Your task to perform on an android device: Open the calendar app, open the side menu, and click the "Day" option Image 0: 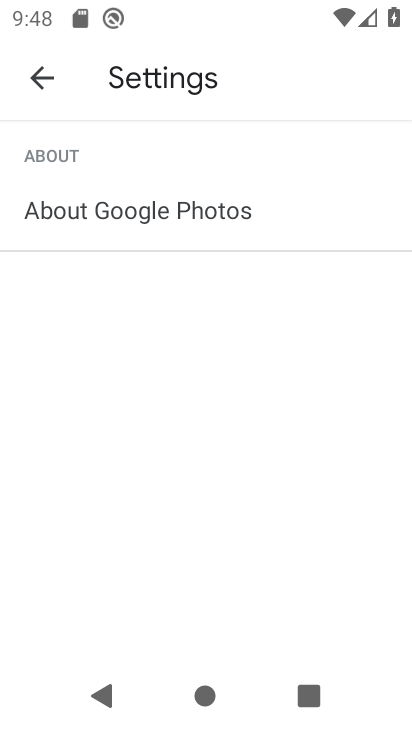
Step 0: press back button
Your task to perform on an android device: Open the calendar app, open the side menu, and click the "Day" option Image 1: 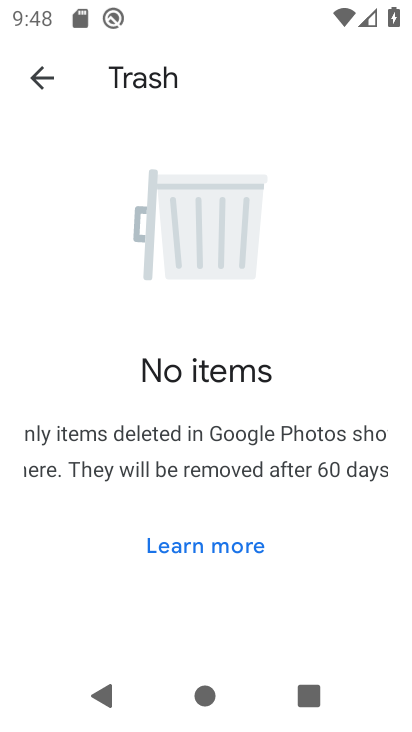
Step 1: press back button
Your task to perform on an android device: Open the calendar app, open the side menu, and click the "Day" option Image 2: 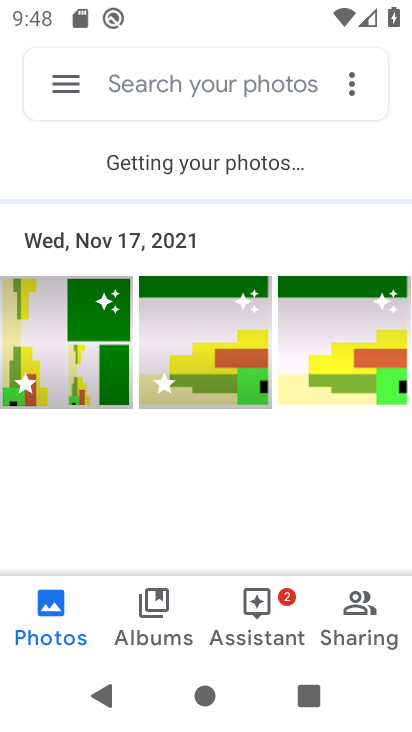
Step 2: press home button
Your task to perform on an android device: Open the calendar app, open the side menu, and click the "Day" option Image 3: 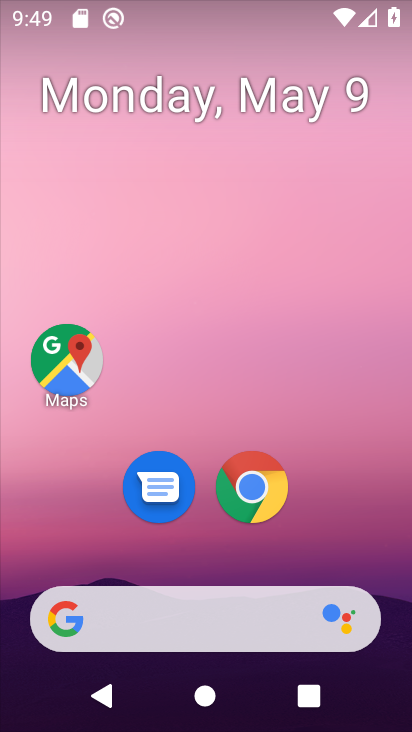
Step 3: drag from (341, 540) to (271, 13)
Your task to perform on an android device: Open the calendar app, open the side menu, and click the "Day" option Image 4: 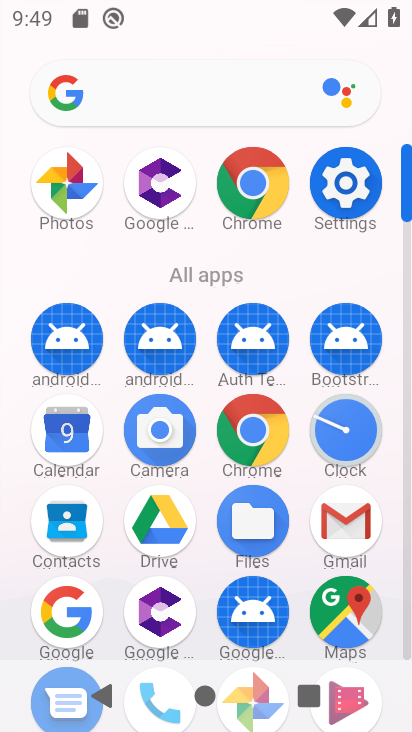
Step 4: click (60, 424)
Your task to perform on an android device: Open the calendar app, open the side menu, and click the "Day" option Image 5: 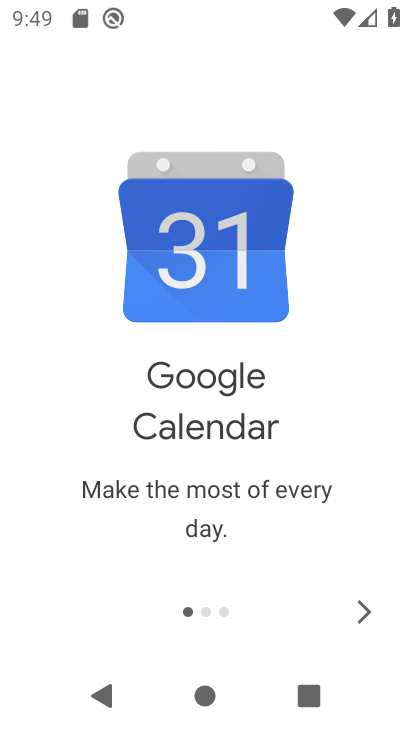
Step 5: click (357, 603)
Your task to perform on an android device: Open the calendar app, open the side menu, and click the "Day" option Image 6: 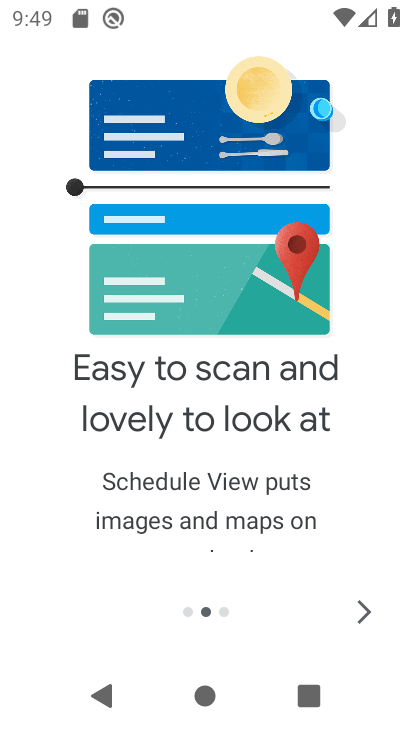
Step 6: click (357, 603)
Your task to perform on an android device: Open the calendar app, open the side menu, and click the "Day" option Image 7: 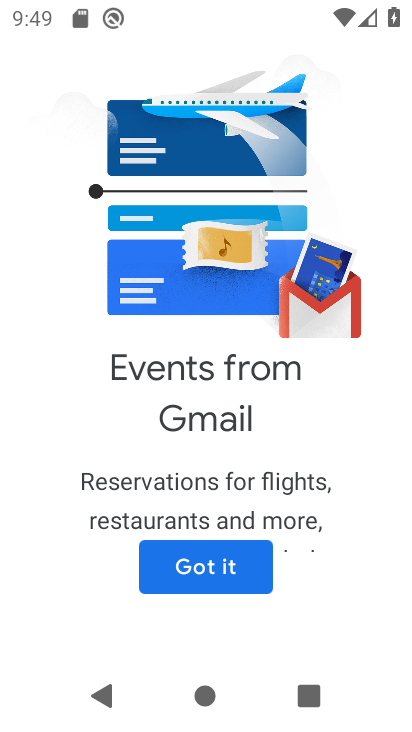
Step 7: click (238, 564)
Your task to perform on an android device: Open the calendar app, open the side menu, and click the "Day" option Image 8: 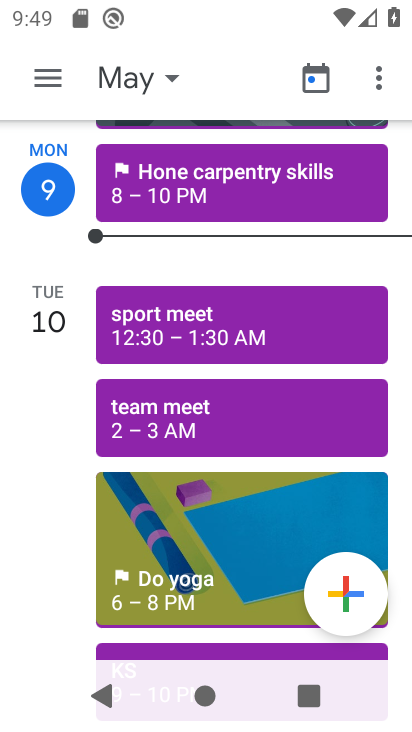
Step 8: click (63, 69)
Your task to perform on an android device: Open the calendar app, open the side menu, and click the "Day" option Image 9: 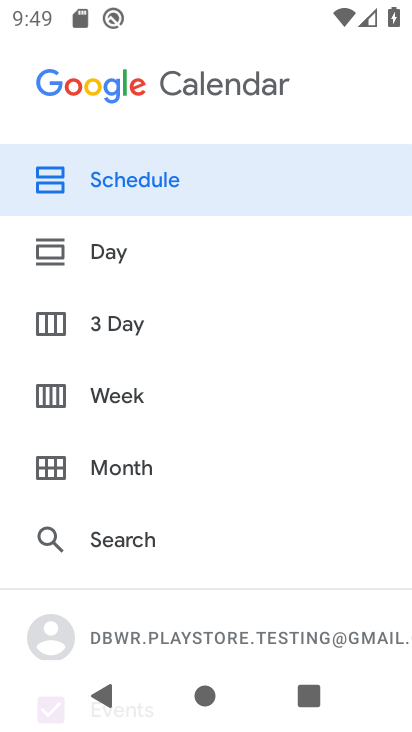
Step 9: click (138, 253)
Your task to perform on an android device: Open the calendar app, open the side menu, and click the "Day" option Image 10: 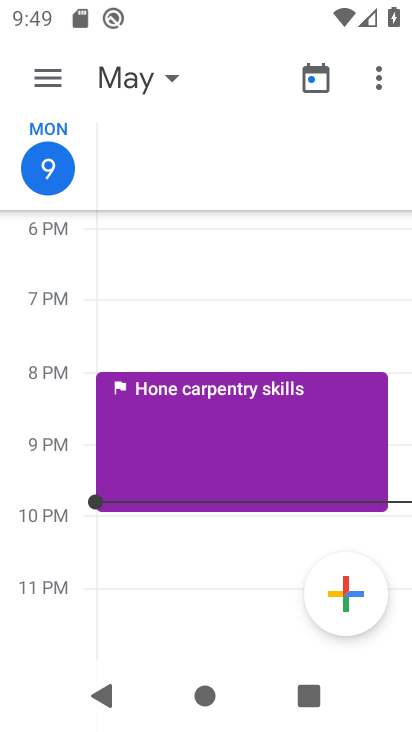
Step 10: task complete